Your task to perform on an android device: Open Google Chrome Image 0: 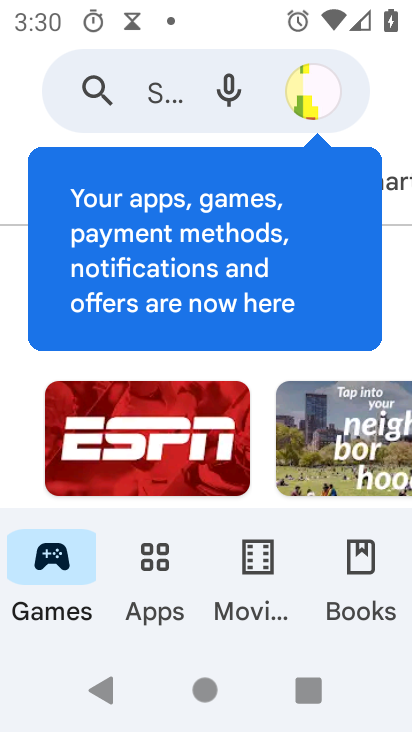
Step 0: press home button
Your task to perform on an android device: Open Google Chrome Image 1: 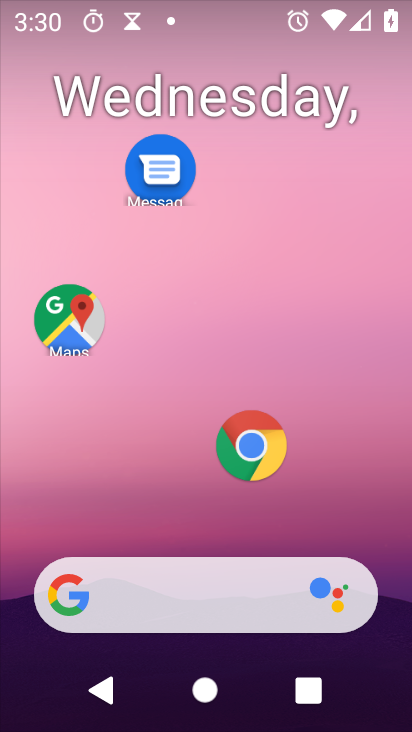
Step 1: click (253, 436)
Your task to perform on an android device: Open Google Chrome Image 2: 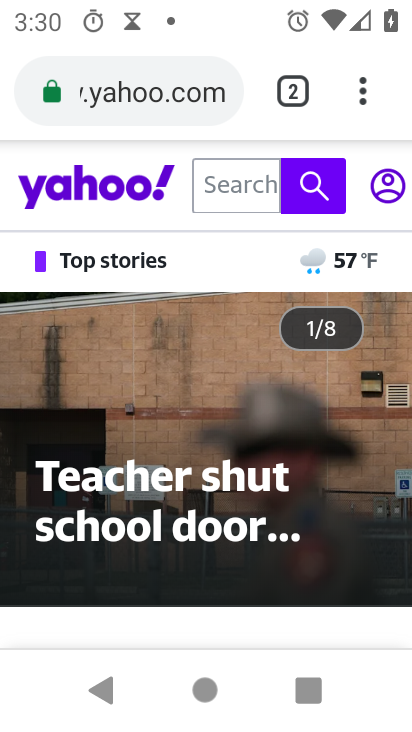
Step 2: click (279, 92)
Your task to perform on an android device: Open Google Chrome Image 3: 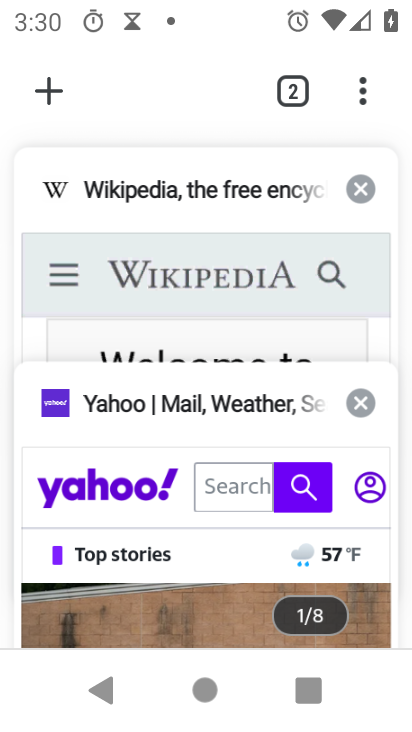
Step 3: click (353, 186)
Your task to perform on an android device: Open Google Chrome Image 4: 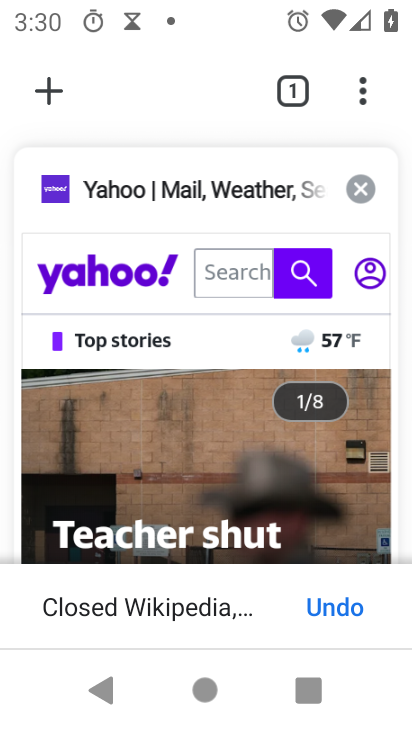
Step 4: click (362, 204)
Your task to perform on an android device: Open Google Chrome Image 5: 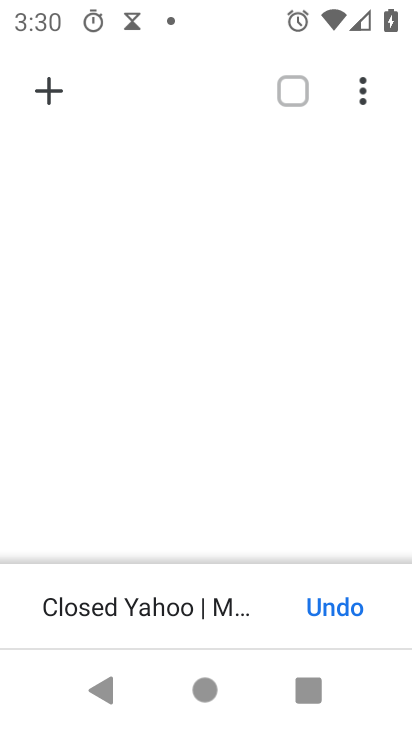
Step 5: click (37, 96)
Your task to perform on an android device: Open Google Chrome Image 6: 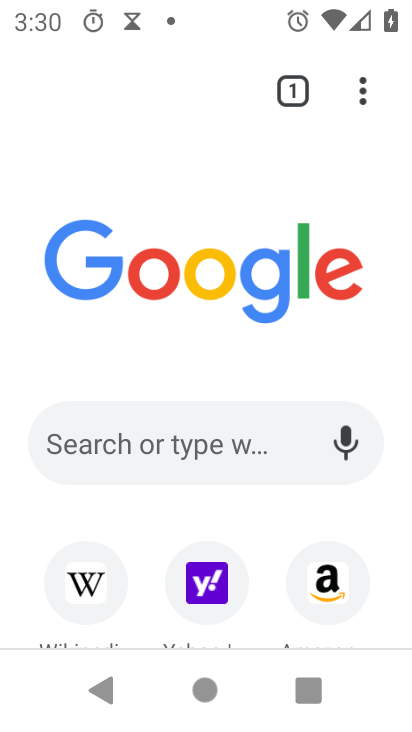
Step 6: task complete